Your task to perform on an android device: Show me popular videos on Youtube Image 0: 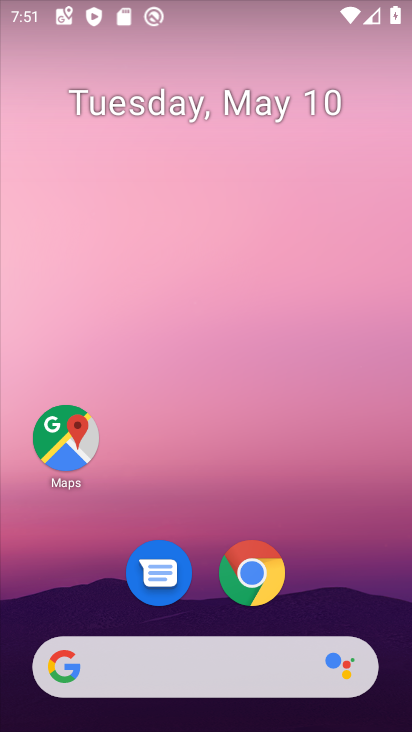
Step 0: drag from (340, 590) to (343, 110)
Your task to perform on an android device: Show me popular videos on Youtube Image 1: 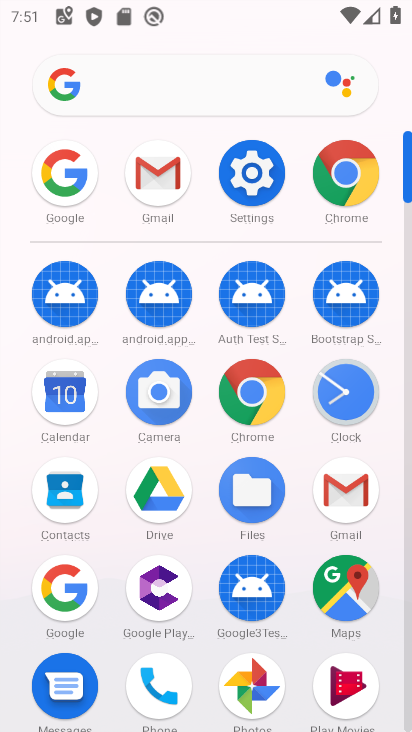
Step 1: drag from (300, 634) to (297, 229)
Your task to perform on an android device: Show me popular videos on Youtube Image 2: 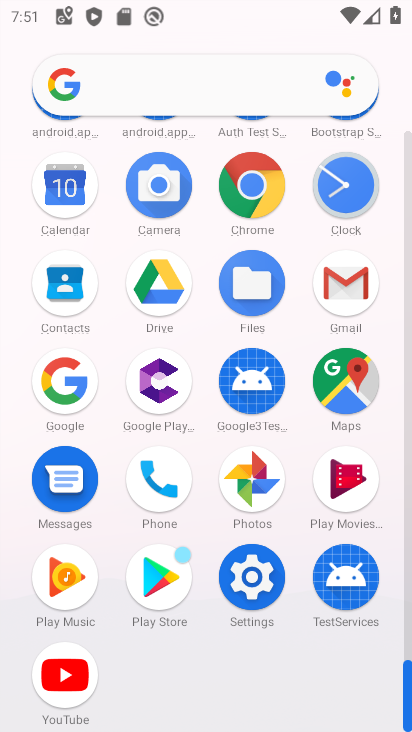
Step 2: click (66, 663)
Your task to perform on an android device: Show me popular videos on Youtube Image 3: 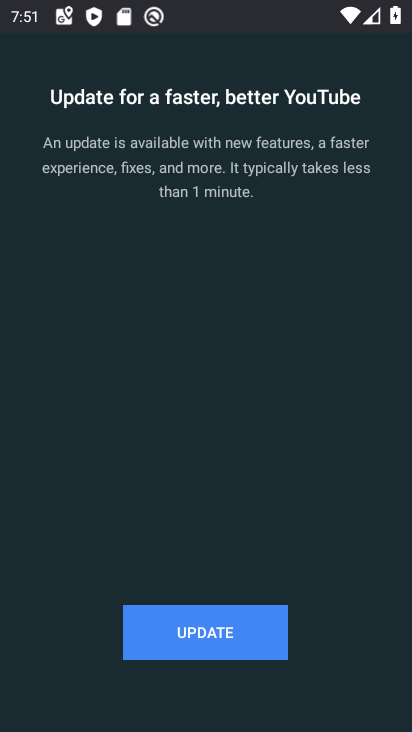
Step 3: press home button
Your task to perform on an android device: Show me popular videos on Youtube Image 4: 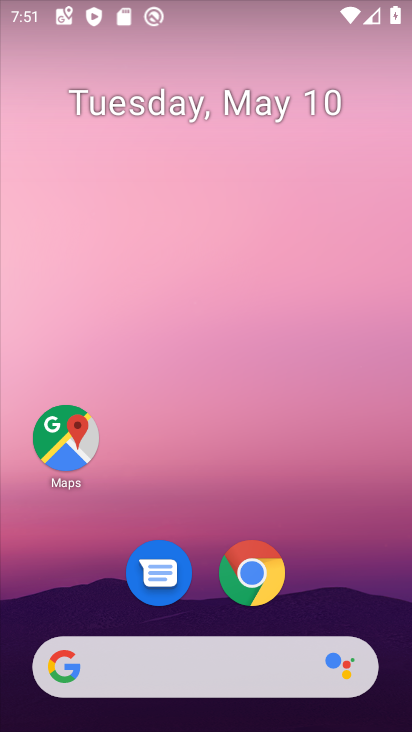
Step 4: drag from (394, 614) to (355, 95)
Your task to perform on an android device: Show me popular videos on Youtube Image 5: 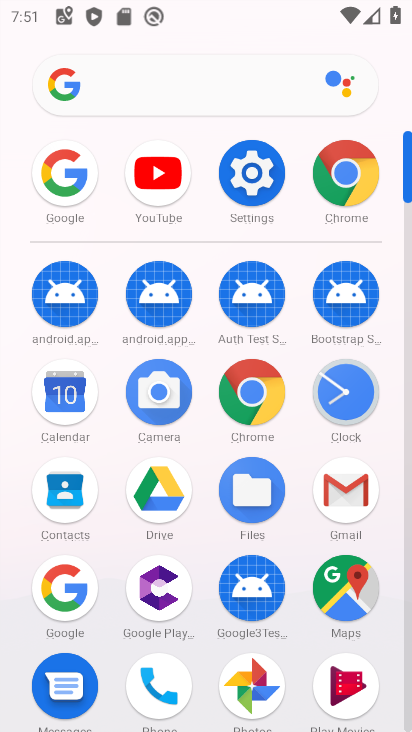
Step 5: drag from (183, 650) to (193, 237)
Your task to perform on an android device: Show me popular videos on Youtube Image 6: 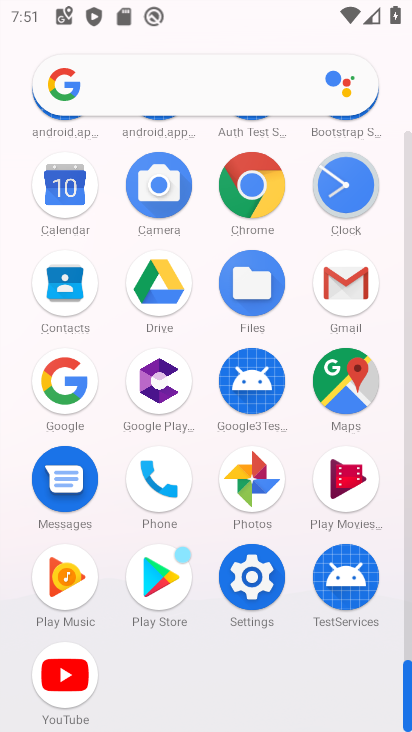
Step 6: click (46, 683)
Your task to perform on an android device: Show me popular videos on Youtube Image 7: 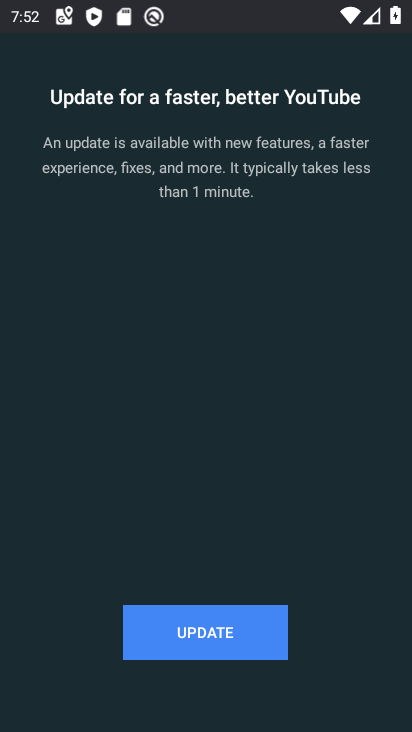
Step 7: click (216, 655)
Your task to perform on an android device: Show me popular videos on Youtube Image 8: 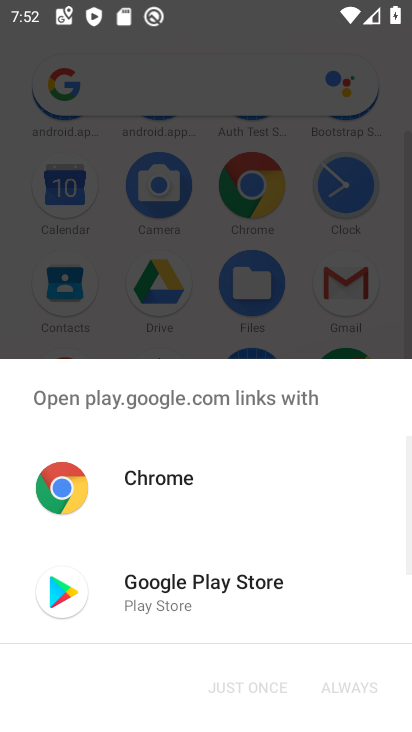
Step 8: click (195, 586)
Your task to perform on an android device: Show me popular videos on Youtube Image 9: 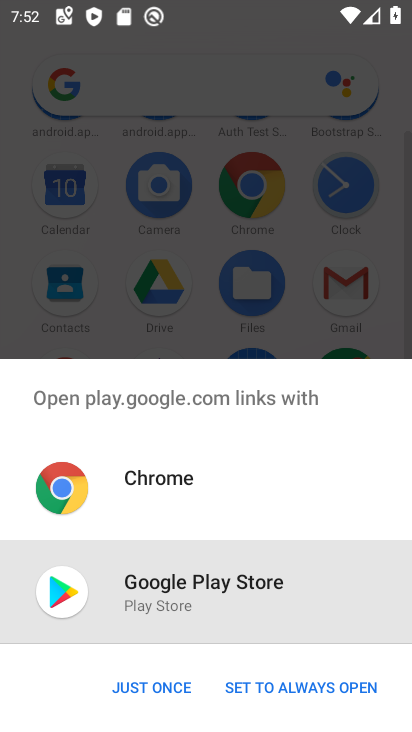
Step 9: click (152, 689)
Your task to perform on an android device: Show me popular videos on Youtube Image 10: 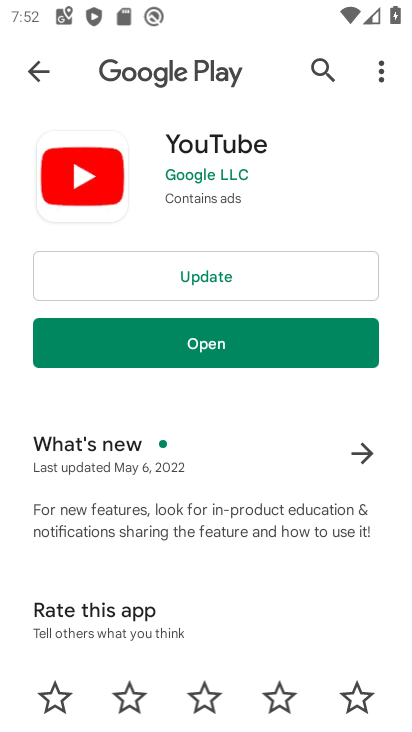
Step 10: click (179, 270)
Your task to perform on an android device: Show me popular videos on Youtube Image 11: 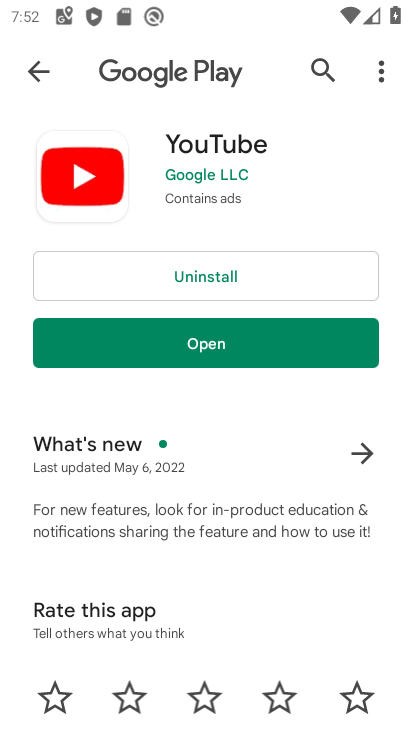
Step 11: click (269, 349)
Your task to perform on an android device: Show me popular videos on Youtube Image 12: 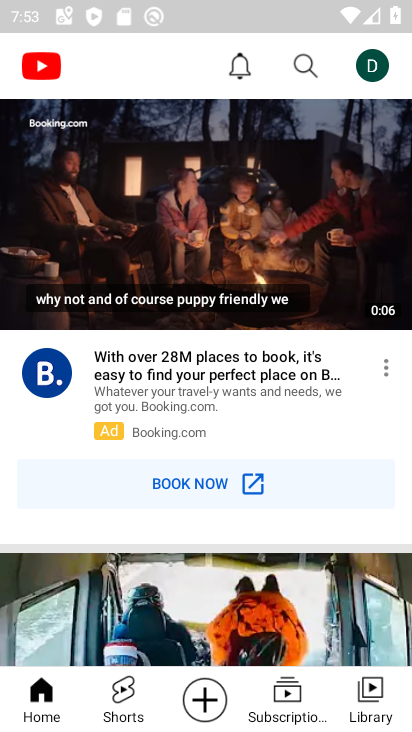
Step 12: click (302, 60)
Your task to perform on an android device: Show me popular videos on Youtube Image 13: 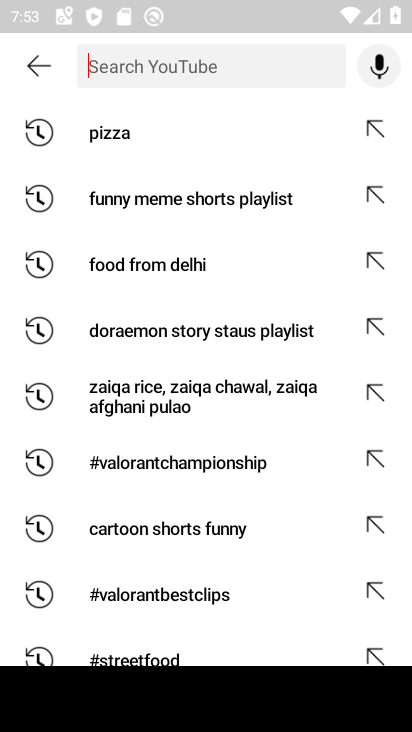
Step 13: type "popular video"
Your task to perform on an android device: Show me popular videos on Youtube Image 14: 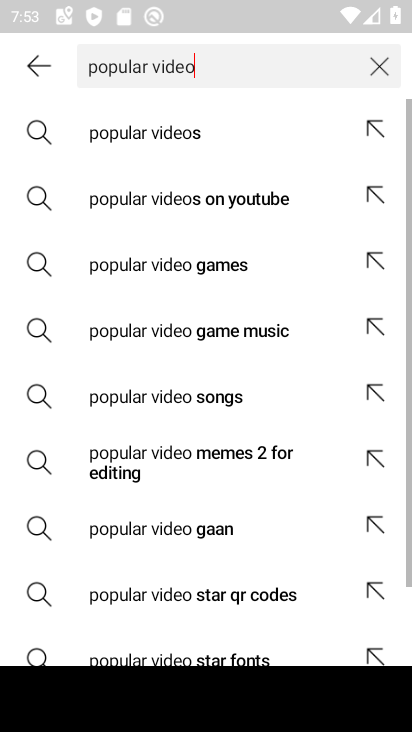
Step 14: click (178, 116)
Your task to perform on an android device: Show me popular videos on Youtube Image 15: 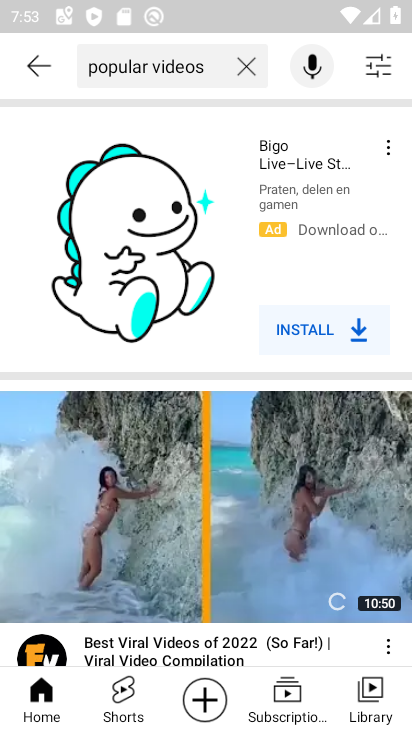
Step 15: task complete